Your task to perform on an android device: Open Youtube and go to "Your channel" Image 0: 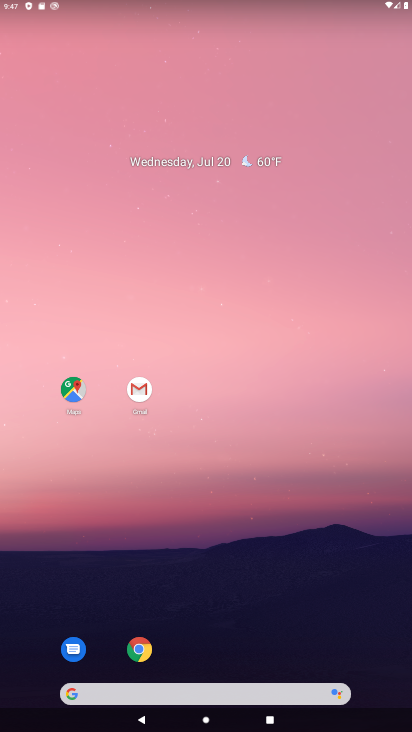
Step 0: drag from (373, 726) to (236, 172)
Your task to perform on an android device: Open Youtube and go to "Your channel" Image 1: 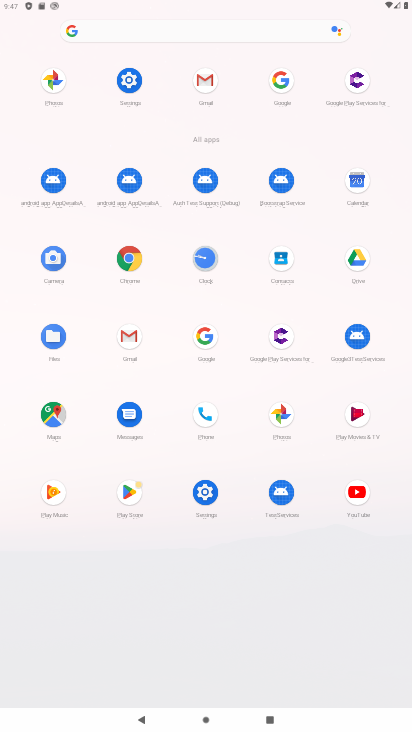
Step 1: click (355, 492)
Your task to perform on an android device: Open Youtube and go to "Your channel" Image 2: 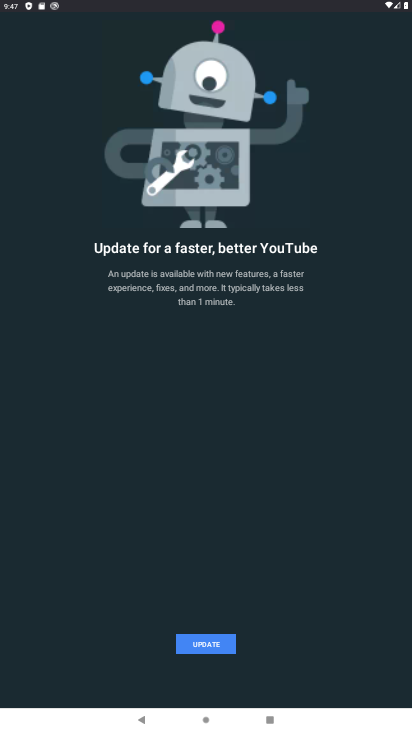
Step 2: click (205, 643)
Your task to perform on an android device: Open Youtube and go to "Your channel" Image 3: 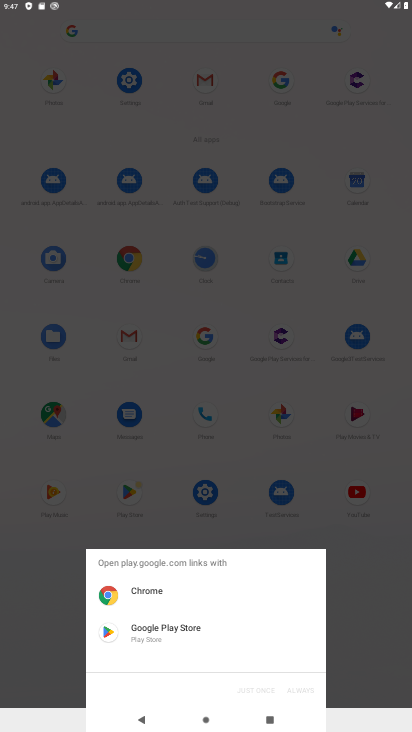
Step 3: click (161, 633)
Your task to perform on an android device: Open Youtube and go to "Your channel" Image 4: 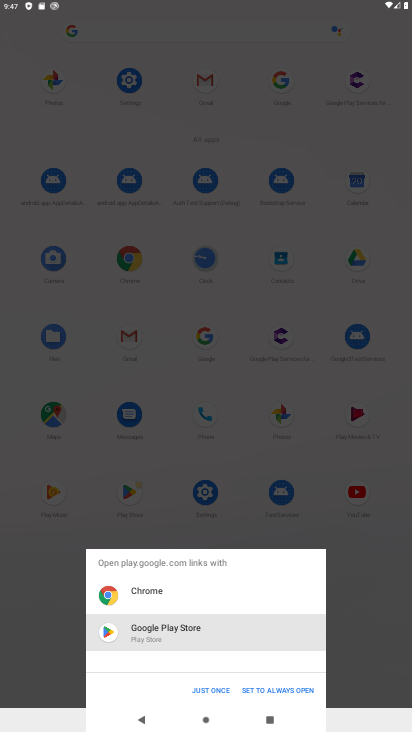
Step 4: click (161, 633)
Your task to perform on an android device: Open Youtube and go to "Your channel" Image 5: 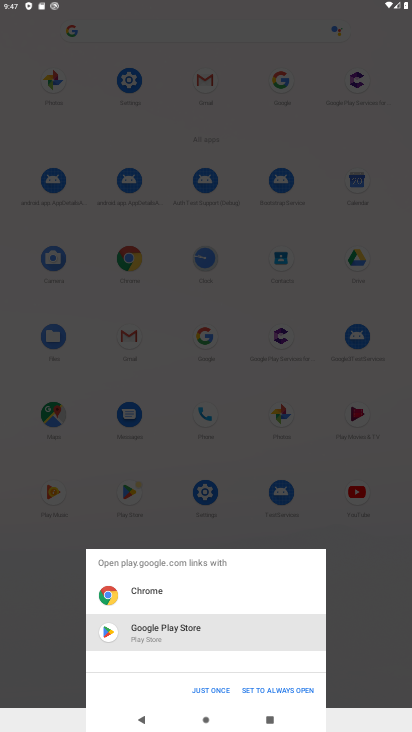
Step 5: click (201, 682)
Your task to perform on an android device: Open Youtube and go to "Your channel" Image 6: 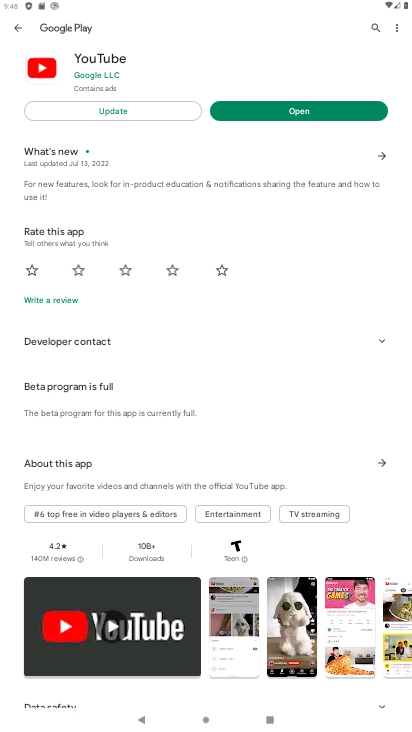
Step 6: click (252, 103)
Your task to perform on an android device: Open Youtube and go to "Your channel" Image 7: 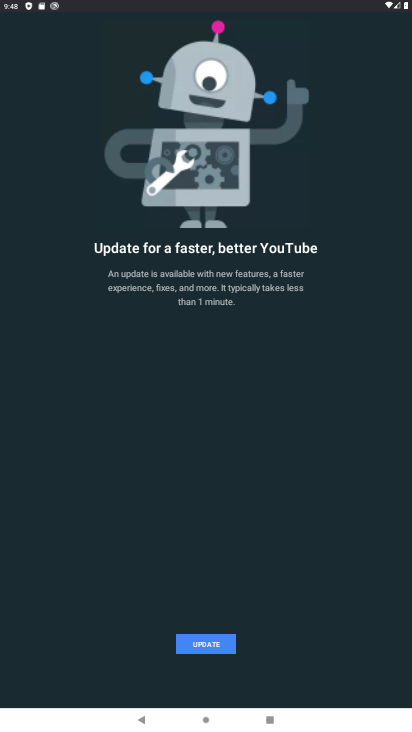
Step 7: click (231, 643)
Your task to perform on an android device: Open Youtube and go to "Your channel" Image 8: 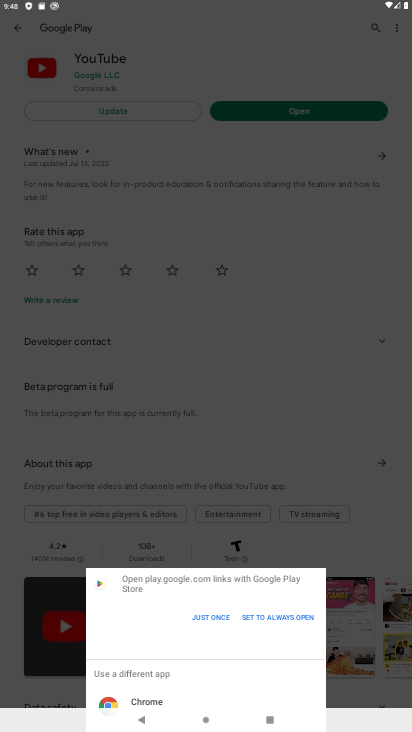
Step 8: click (217, 607)
Your task to perform on an android device: Open Youtube and go to "Your channel" Image 9: 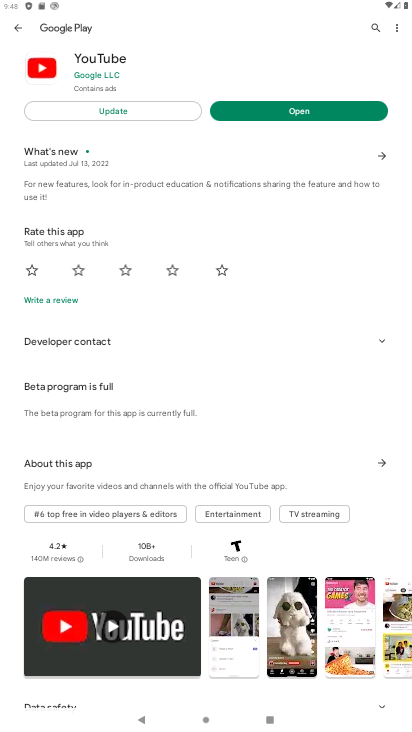
Step 9: click (119, 112)
Your task to perform on an android device: Open Youtube and go to "Your channel" Image 10: 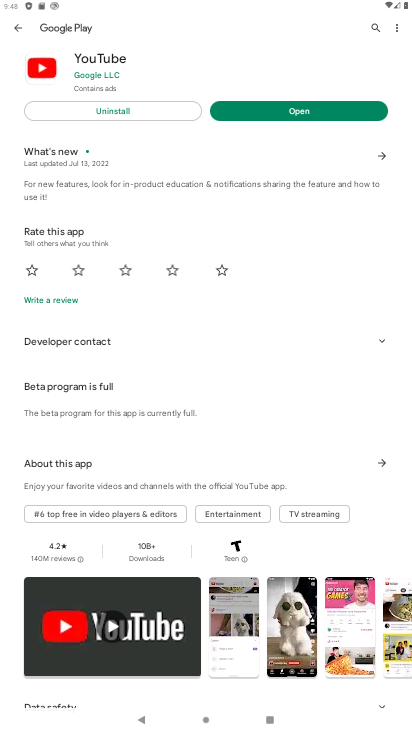
Step 10: click (272, 105)
Your task to perform on an android device: Open Youtube and go to "Your channel" Image 11: 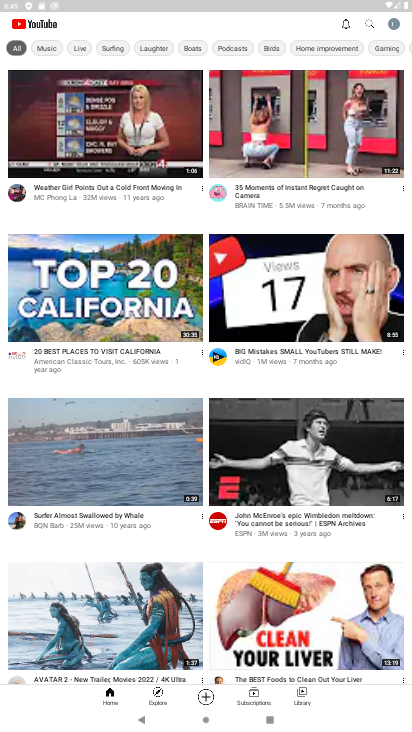
Step 11: click (394, 20)
Your task to perform on an android device: Open Youtube and go to "Your channel" Image 12: 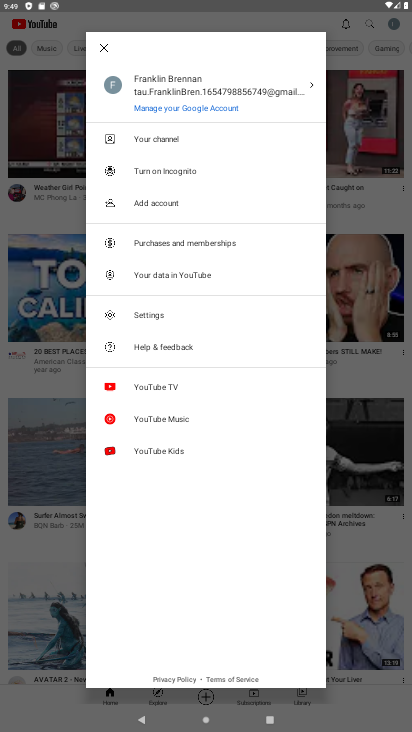
Step 12: click (158, 134)
Your task to perform on an android device: Open Youtube and go to "Your channel" Image 13: 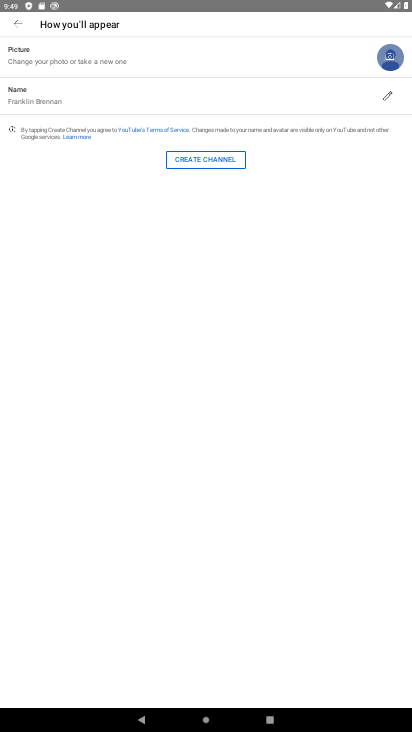
Step 13: task complete